Your task to perform on an android device: delete a single message in the gmail app Image 0: 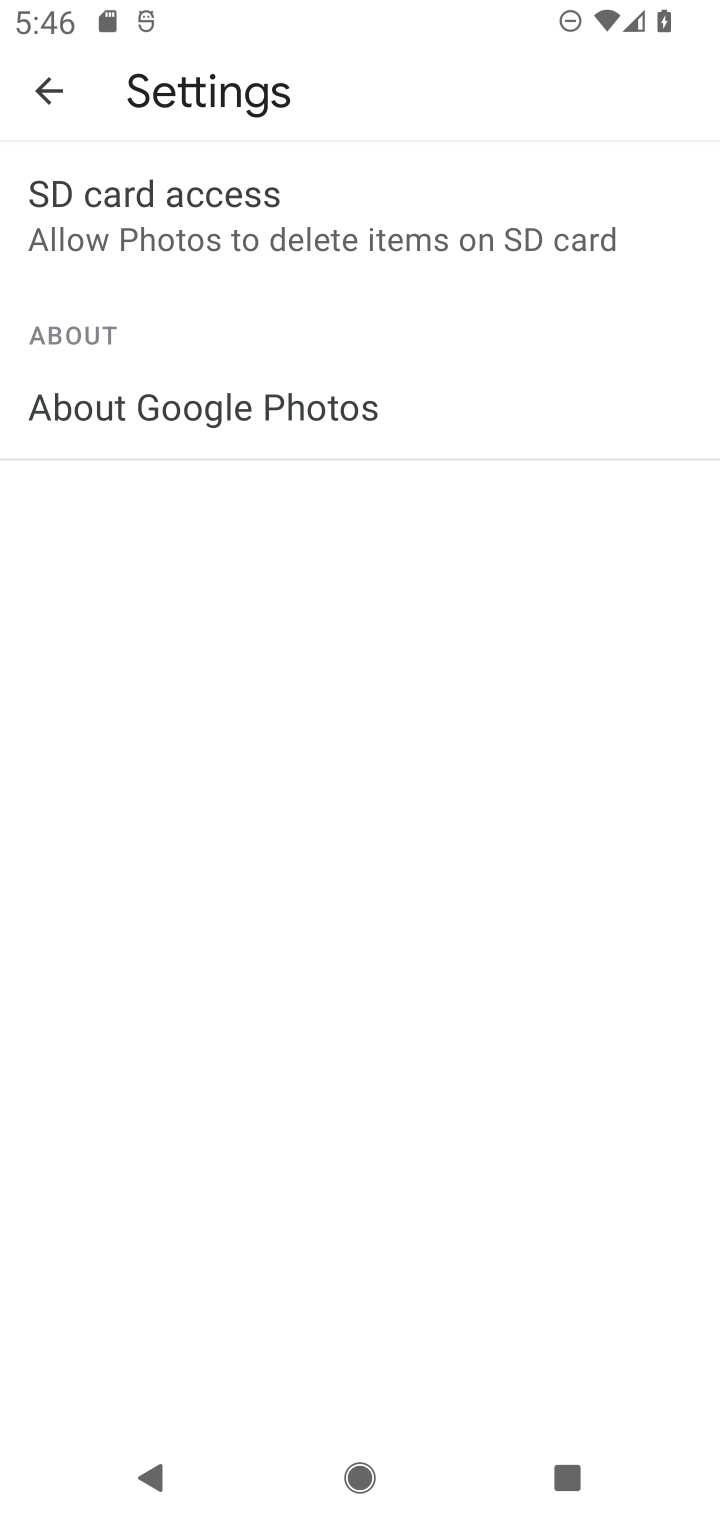
Step 0: press home button
Your task to perform on an android device: delete a single message in the gmail app Image 1: 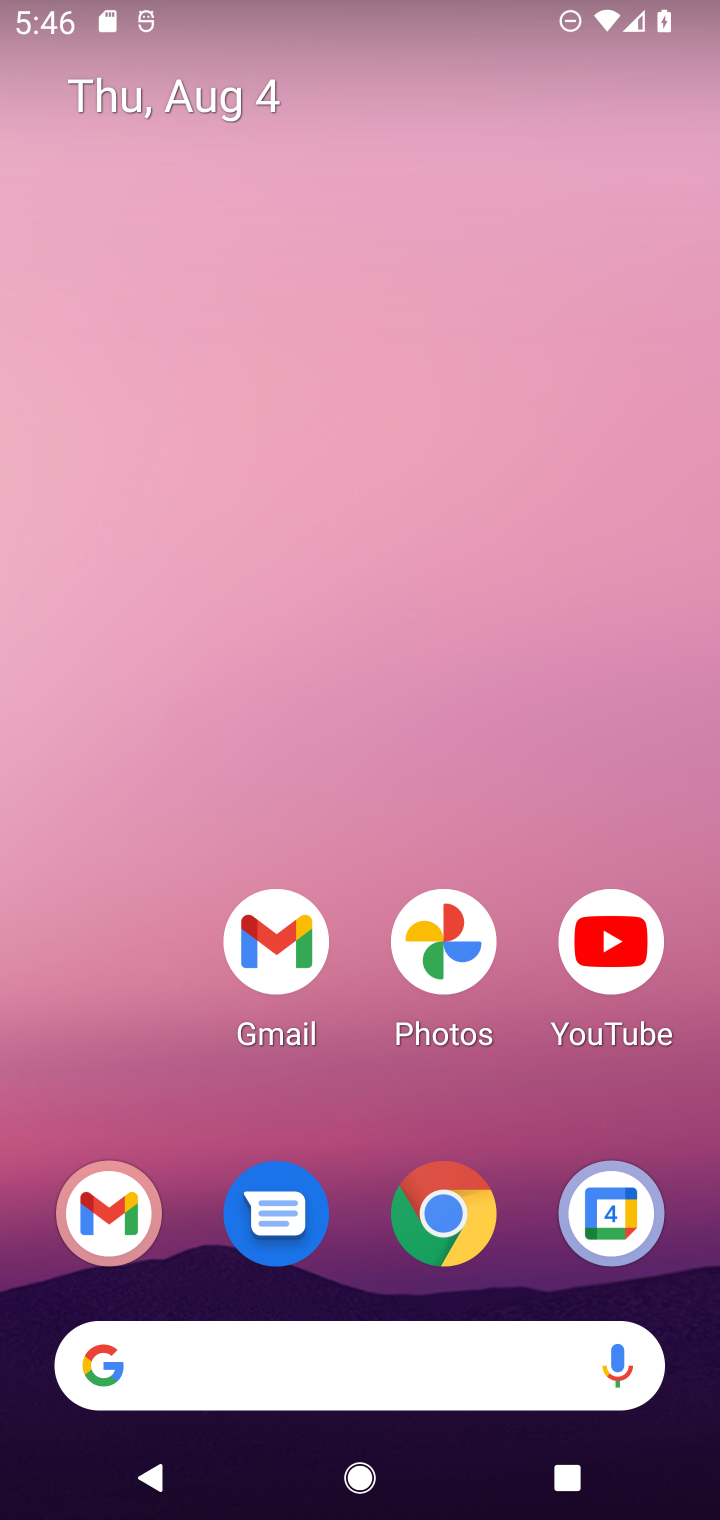
Step 1: drag from (178, 1150) to (194, 479)
Your task to perform on an android device: delete a single message in the gmail app Image 2: 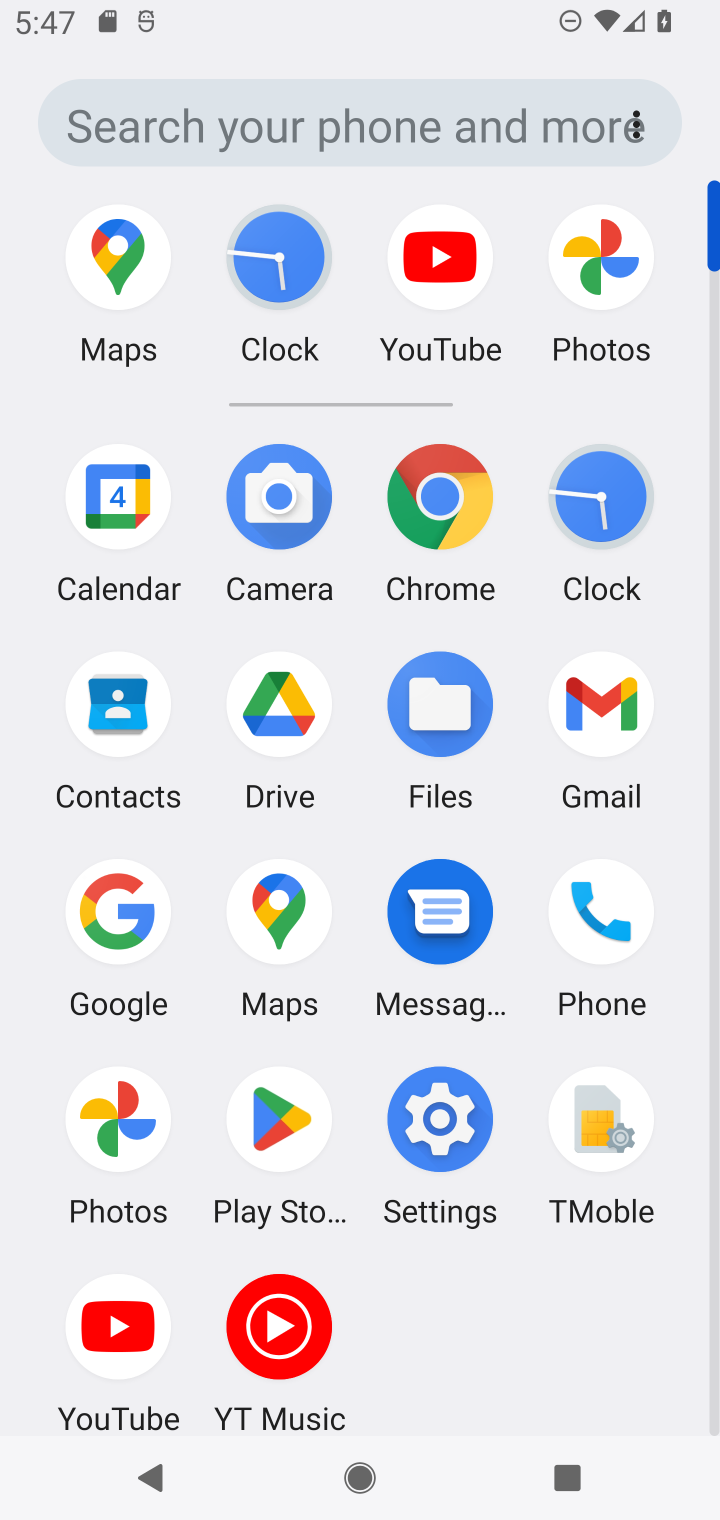
Step 2: click (602, 720)
Your task to perform on an android device: delete a single message in the gmail app Image 3: 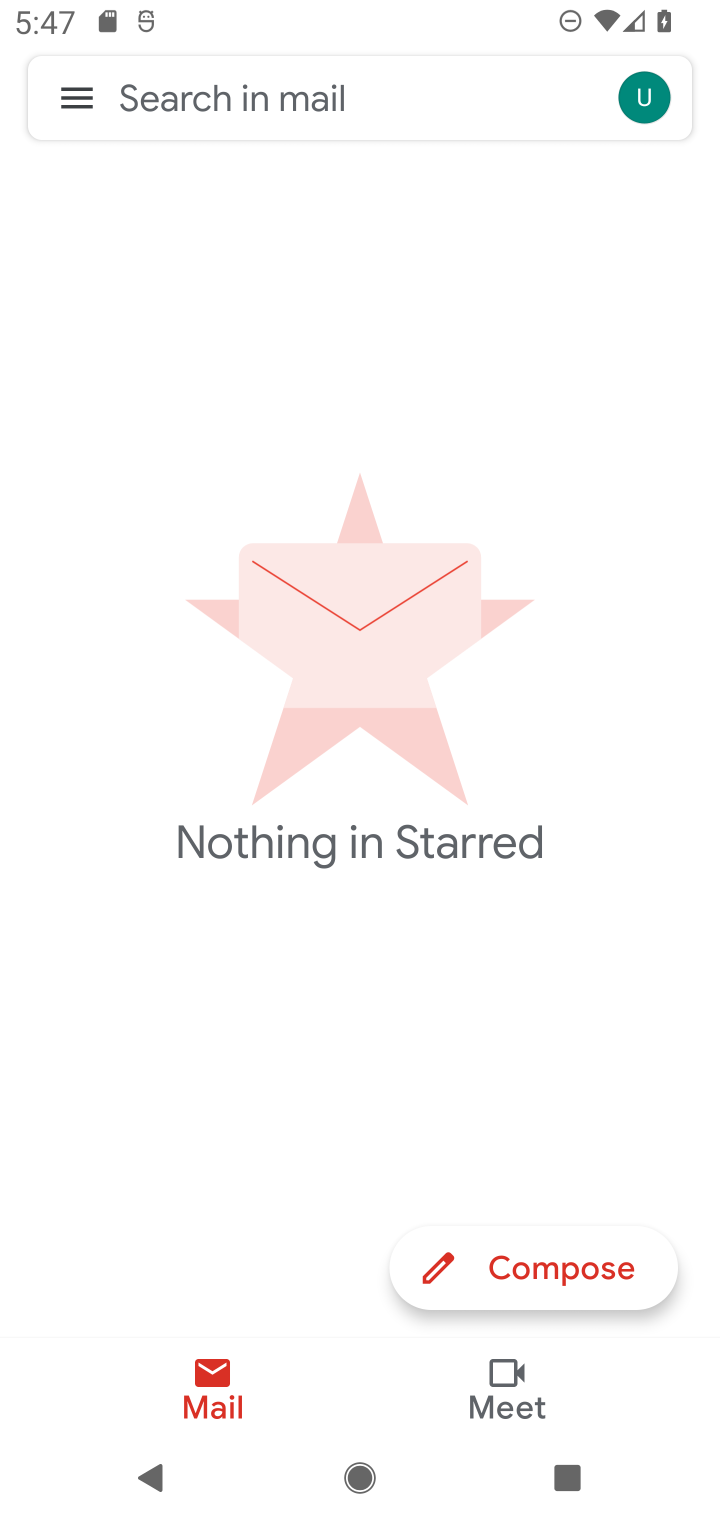
Step 3: click (78, 91)
Your task to perform on an android device: delete a single message in the gmail app Image 4: 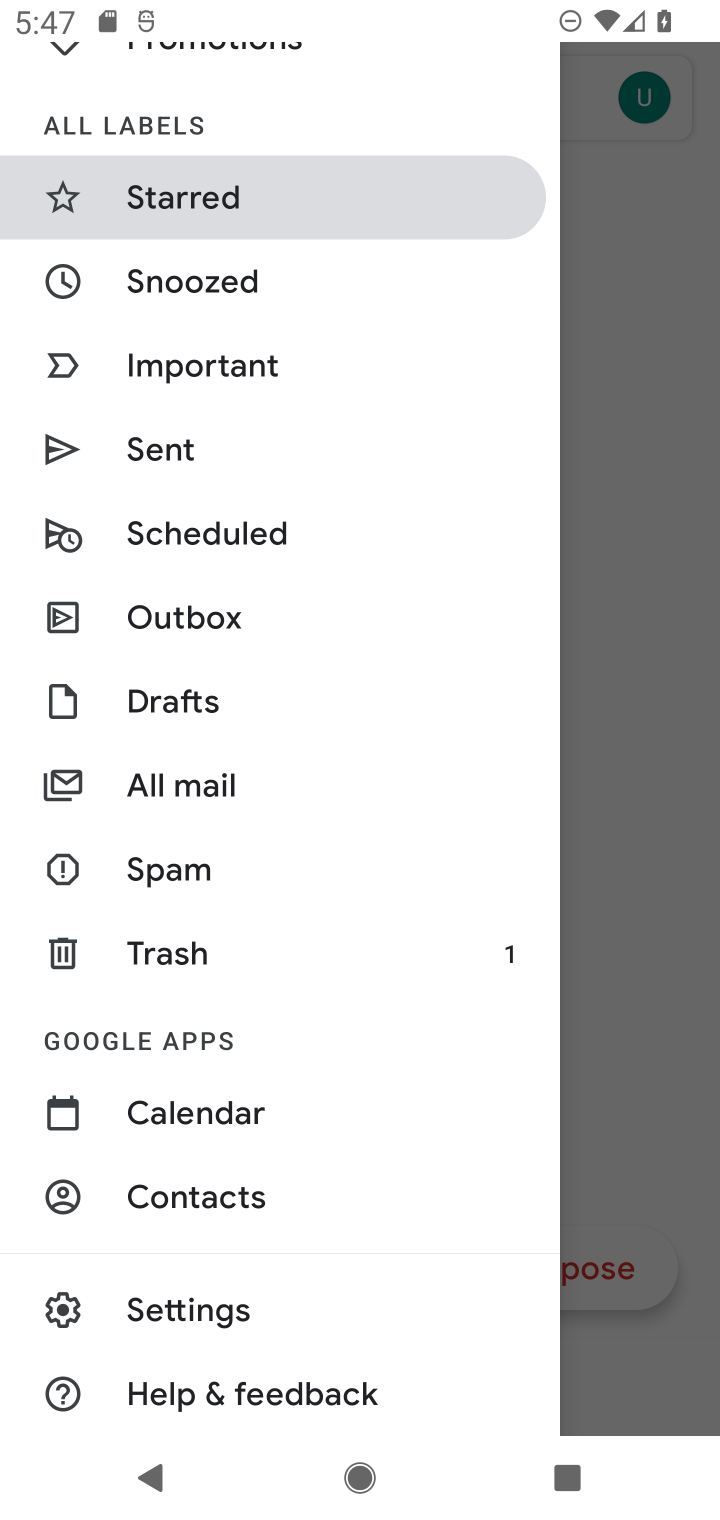
Step 4: click (233, 792)
Your task to perform on an android device: delete a single message in the gmail app Image 5: 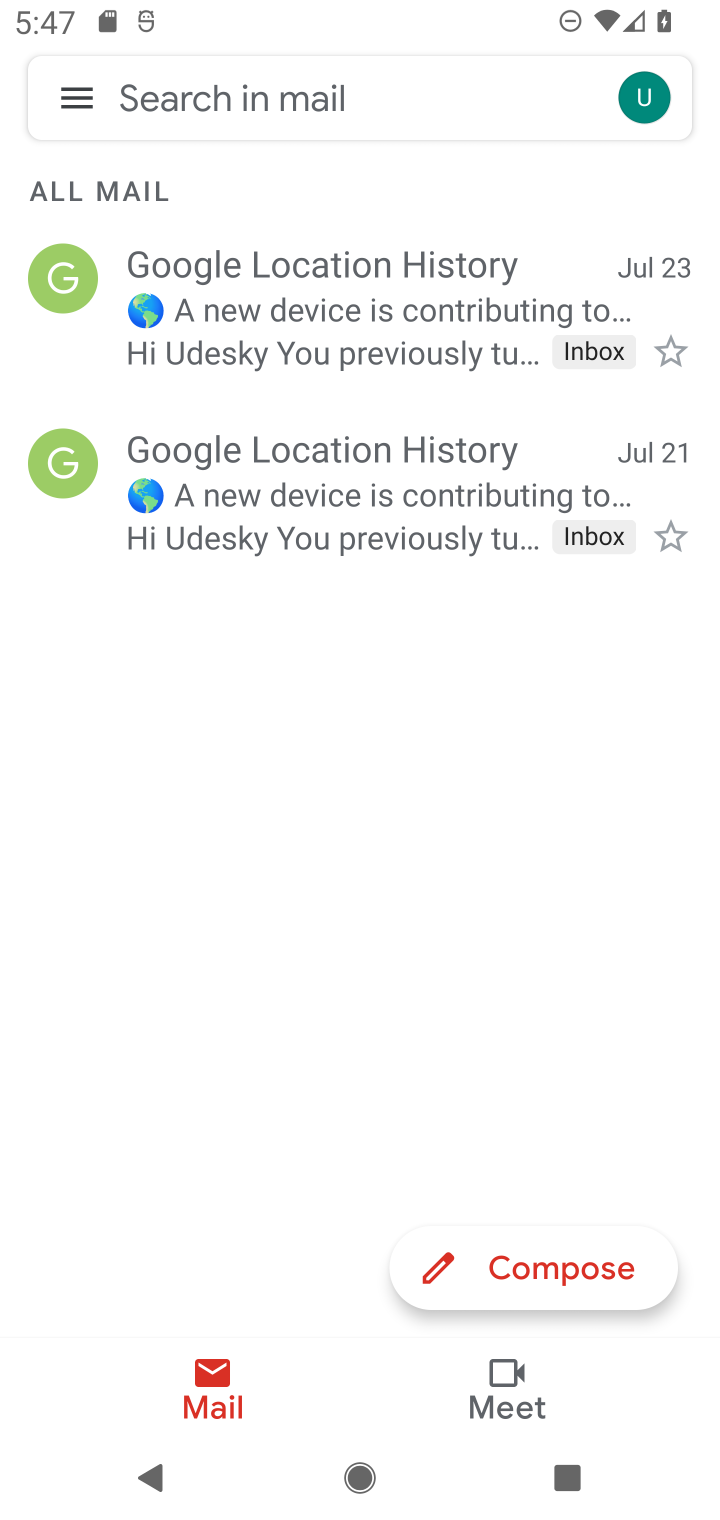
Step 5: click (392, 296)
Your task to perform on an android device: delete a single message in the gmail app Image 6: 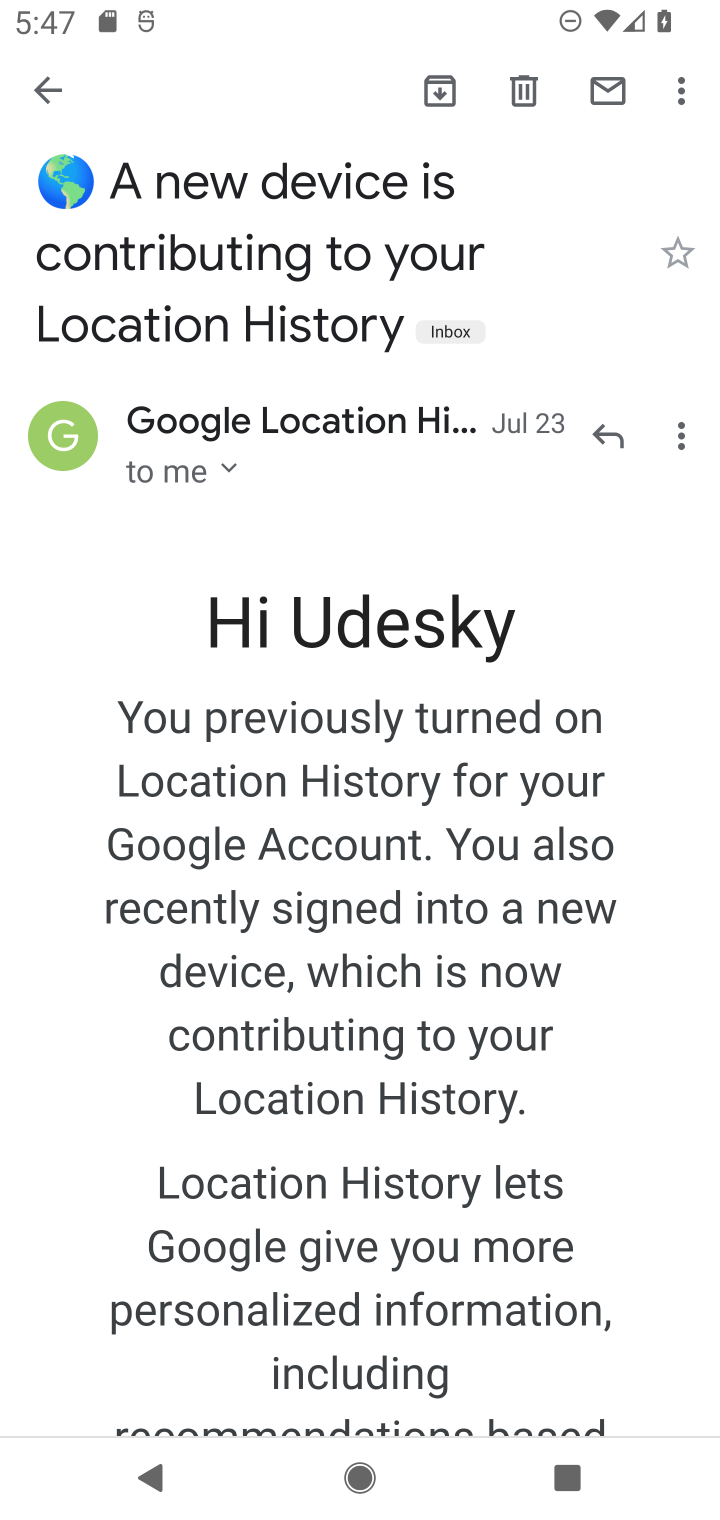
Step 6: click (527, 85)
Your task to perform on an android device: delete a single message in the gmail app Image 7: 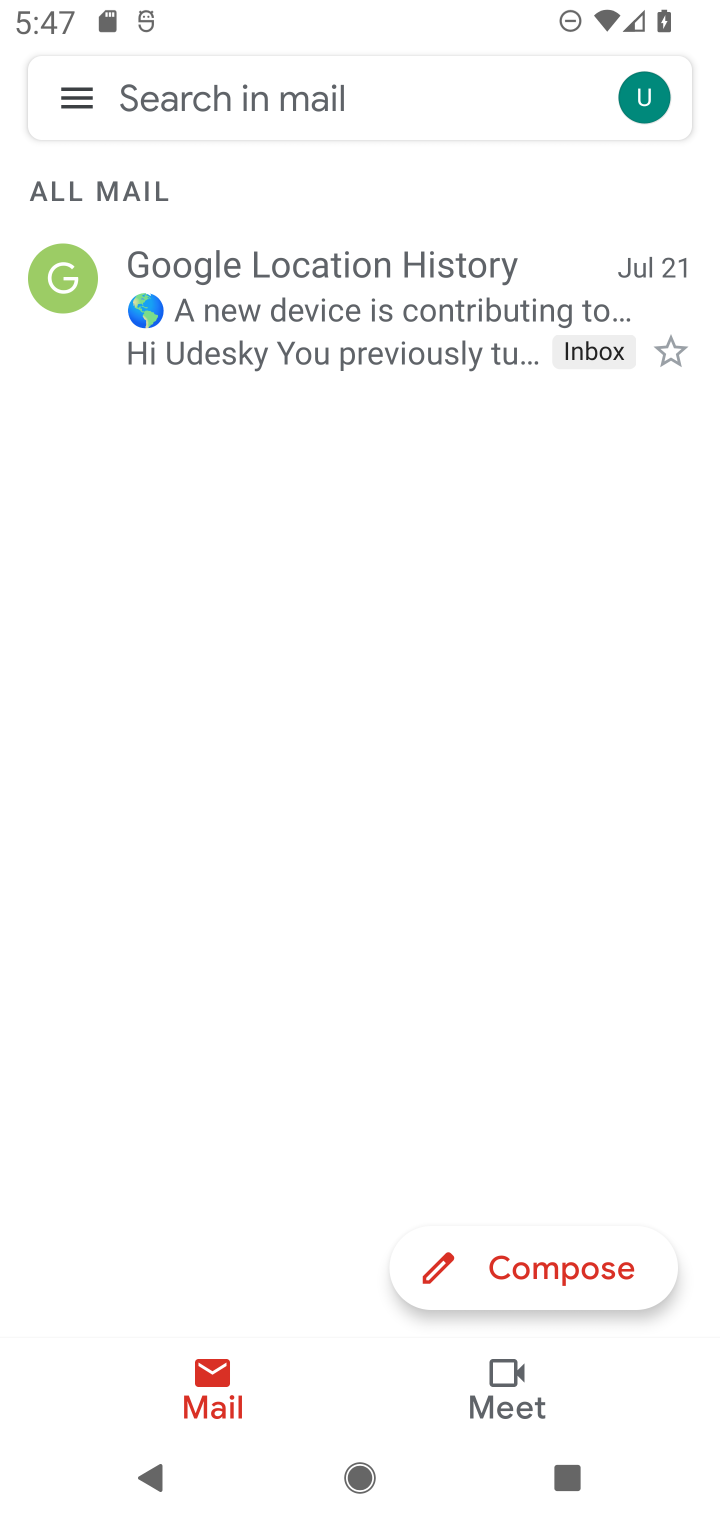
Step 7: task complete